Your task to perform on an android device: turn on priority inbox in the gmail app Image 0: 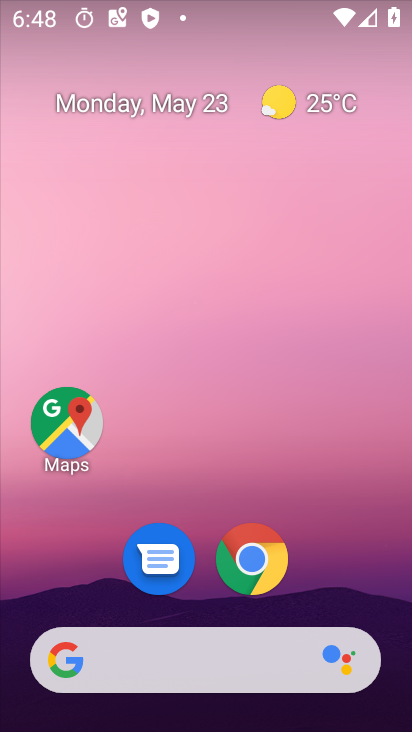
Step 0: drag from (389, 627) to (294, 2)
Your task to perform on an android device: turn on priority inbox in the gmail app Image 1: 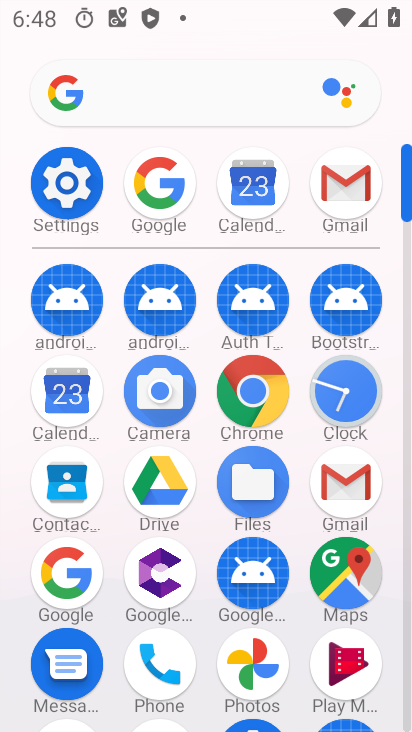
Step 1: click (340, 491)
Your task to perform on an android device: turn on priority inbox in the gmail app Image 2: 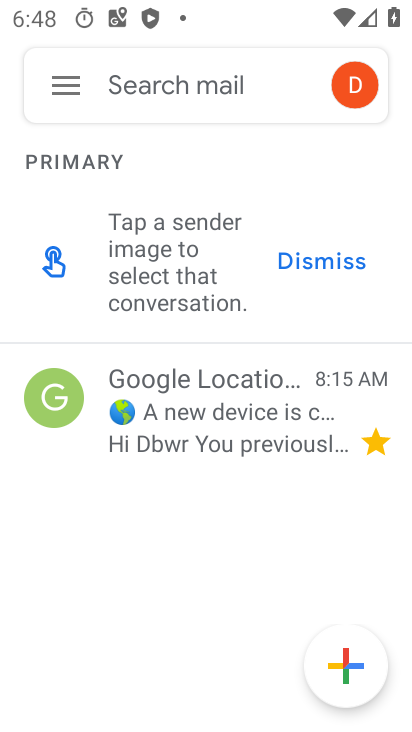
Step 2: click (65, 84)
Your task to perform on an android device: turn on priority inbox in the gmail app Image 3: 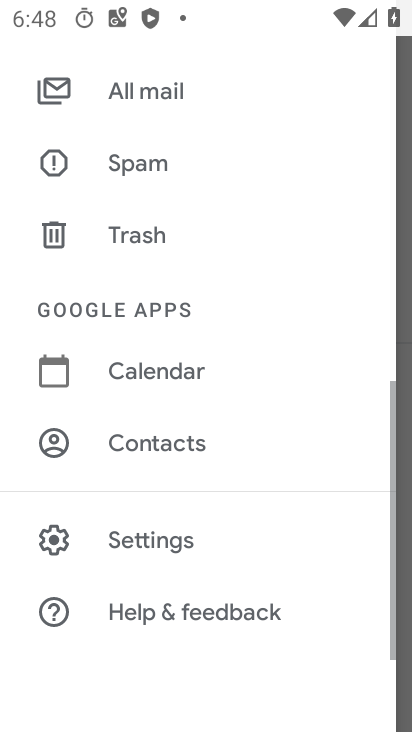
Step 3: click (158, 551)
Your task to perform on an android device: turn on priority inbox in the gmail app Image 4: 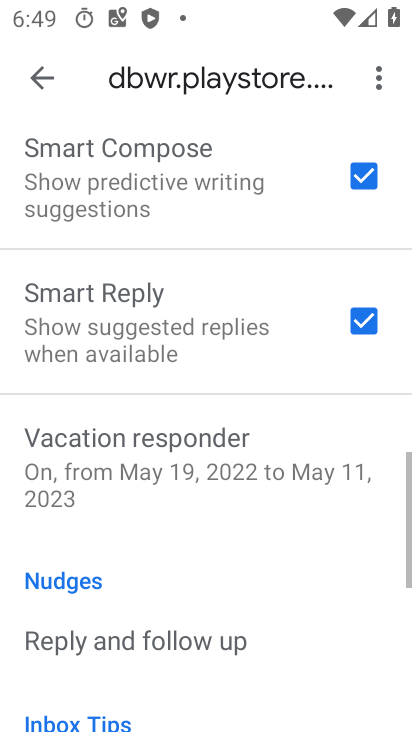
Step 4: drag from (146, 170) to (162, 726)
Your task to perform on an android device: turn on priority inbox in the gmail app Image 5: 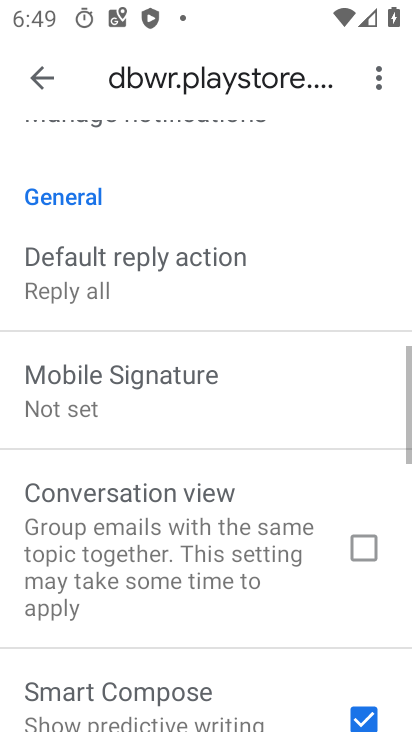
Step 5: drag from (163, 218) to (206, 725)
Your task to perform on an android device: turn on priority inbox in the gmail app Image 6: 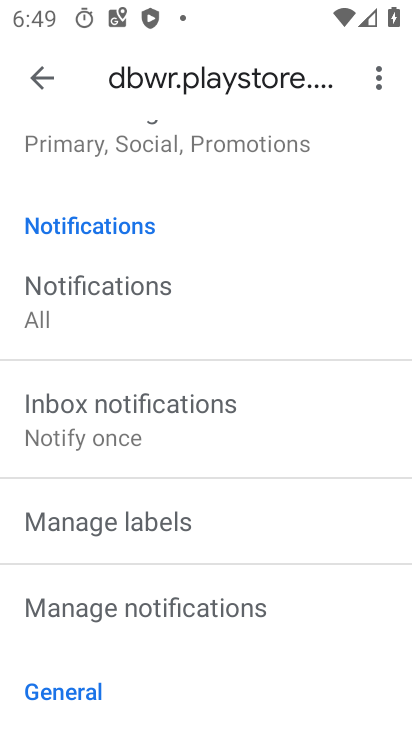
Step 6: drag from (151, 206) to (179, 591)
Your task to perform on an android device: turn on priority inbox in the gmail app Image 7: 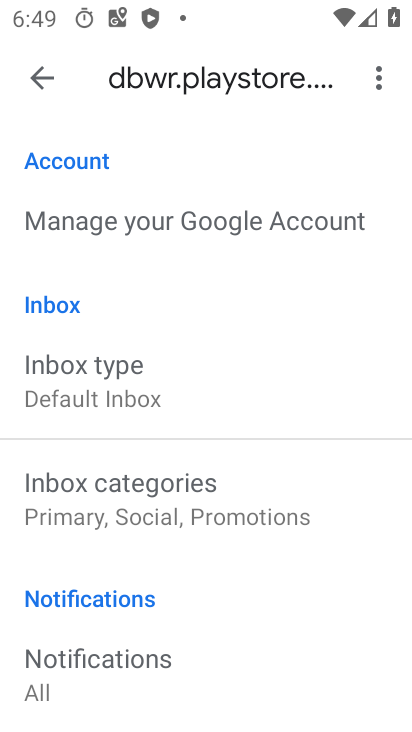
Step 7: click (139, 371)
Your task to perform on an android device: turn on priority inbox in the gmail app Image 8: 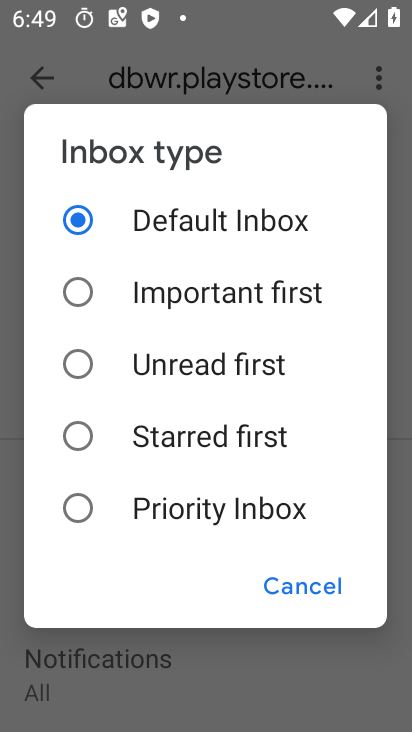
Step 8: click (79, 515)
Your task to perform on an android device: turn on priority inbox in the gmail app Image 9: 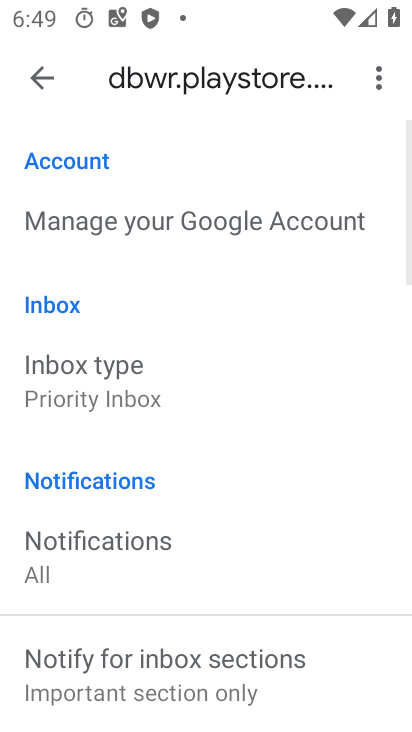
Step 9: task complete